Your task to perform on an android device: move a message to another label in the gmail app Image 0: 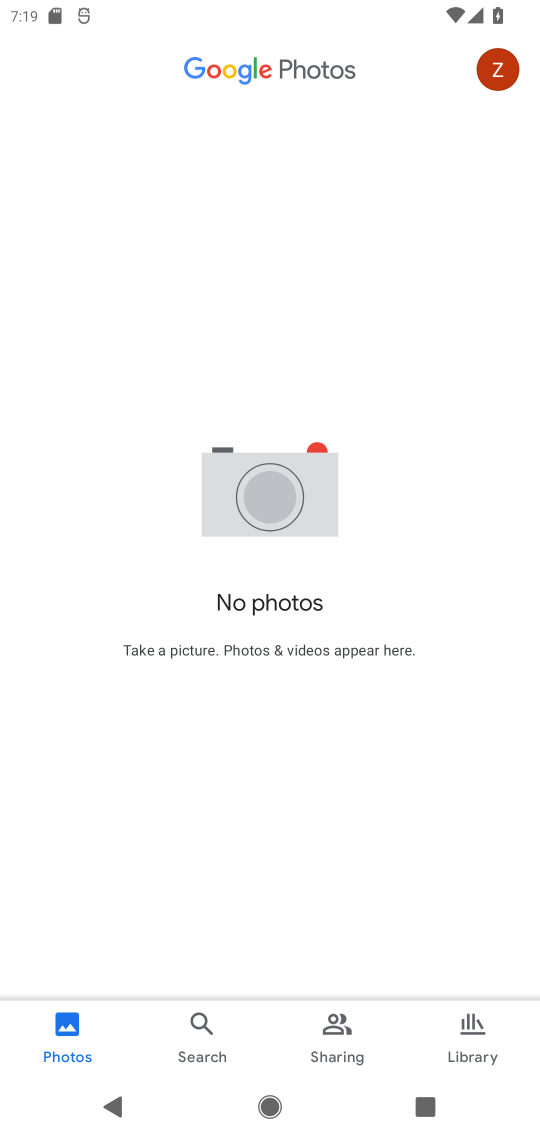
Step 0: press home button
Your task to perform on an android device: move a message to another label in the gmail app Image 1: 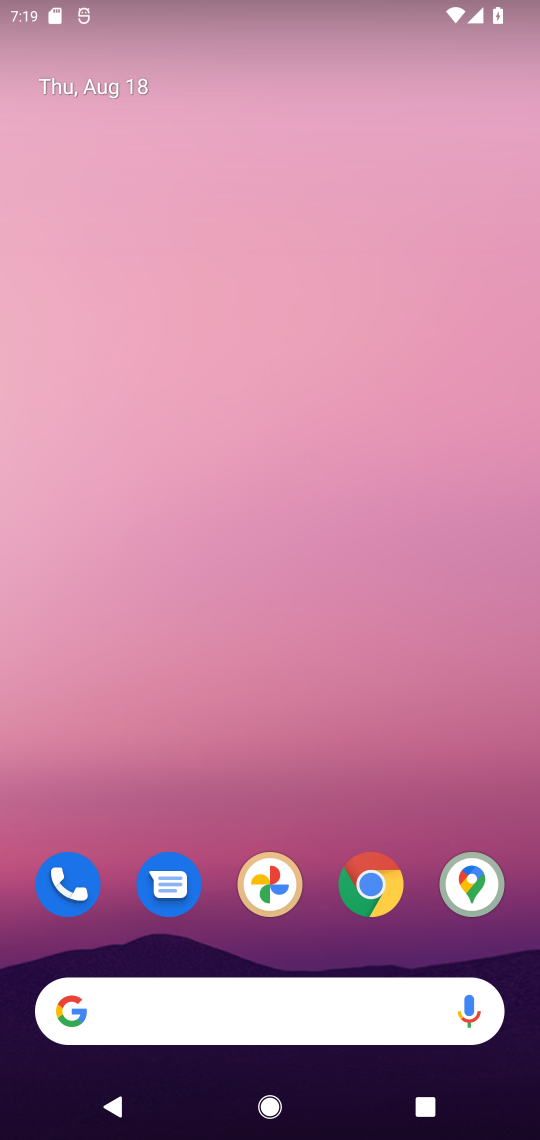
Step 1: drag from (228, 940) to (371, 130)
Your task to perform on an android device: move a message to another label in the gmail app Image 2: 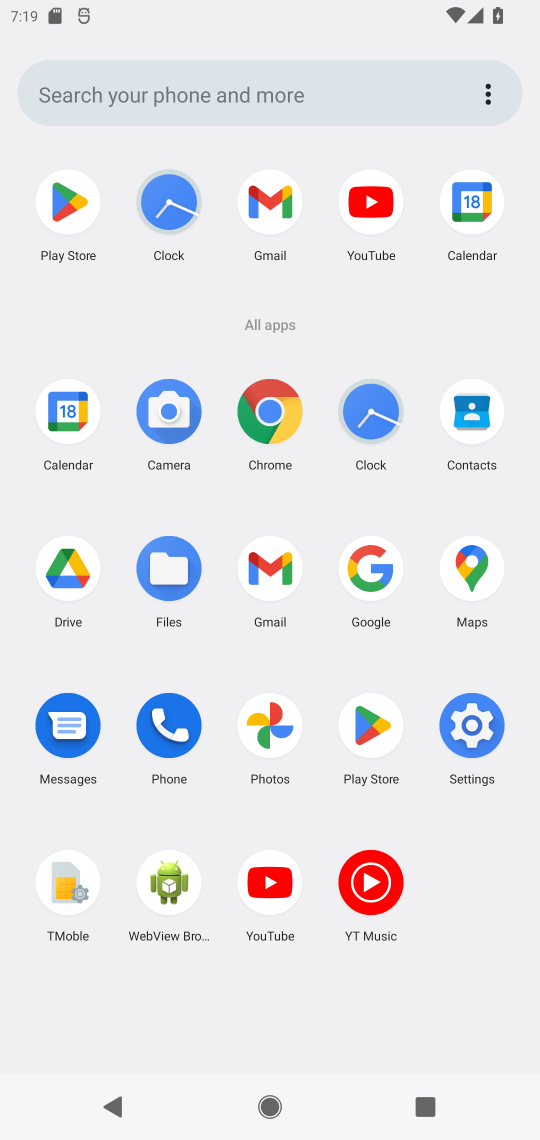
Step 2: click (300, 198)
Your task to perform on an android device: move a message to another label in the gmail app Image 3: 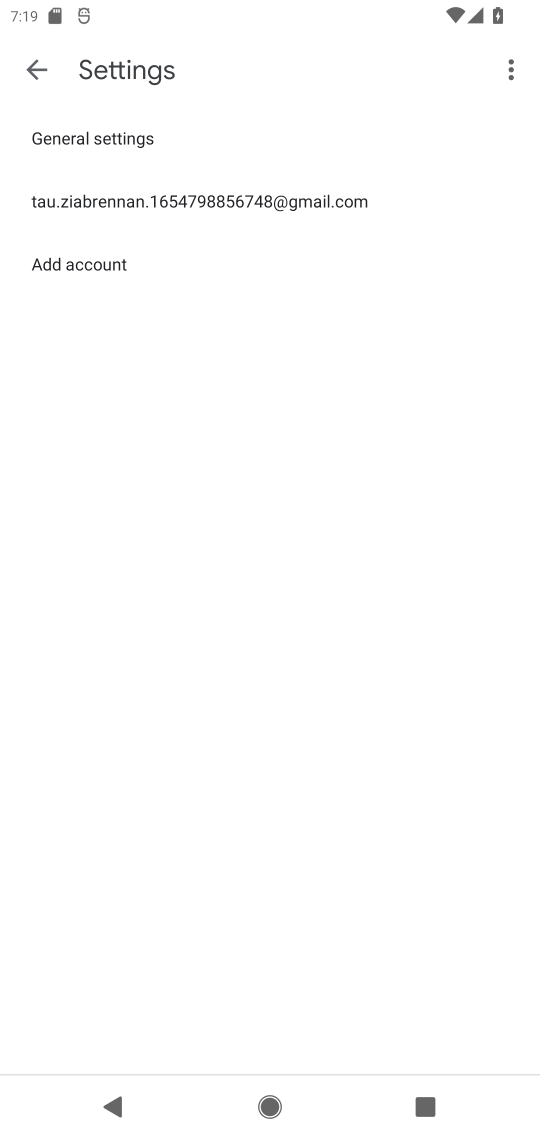
Step 3: click (59, 67)
Your task to perform on an android device: move a message to another label in the gmail app Image 4: 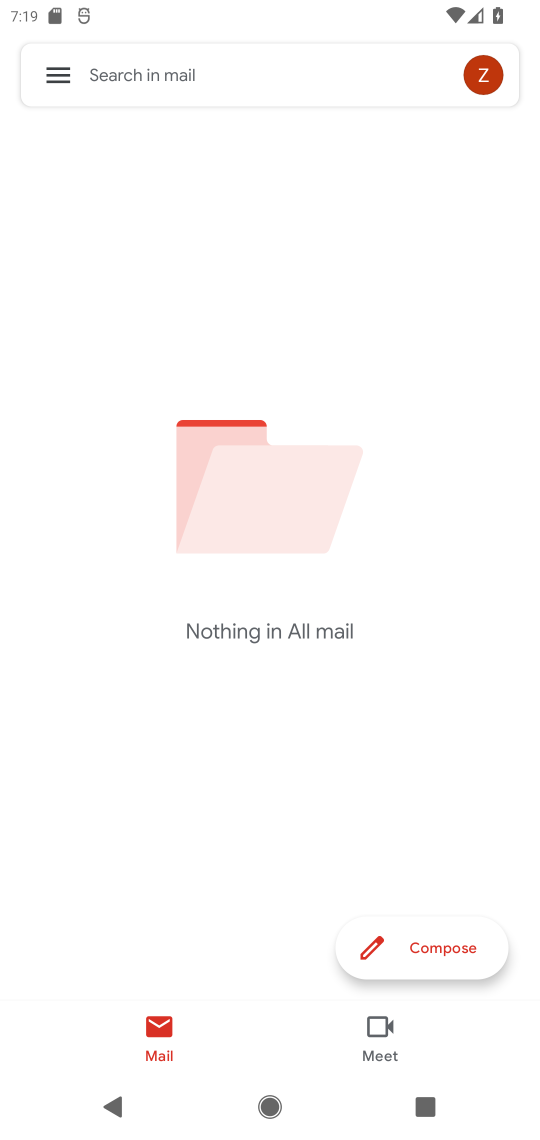
Step 4: task complete